Your task to perform on an android device: What's the news in Singapore? Image 0: 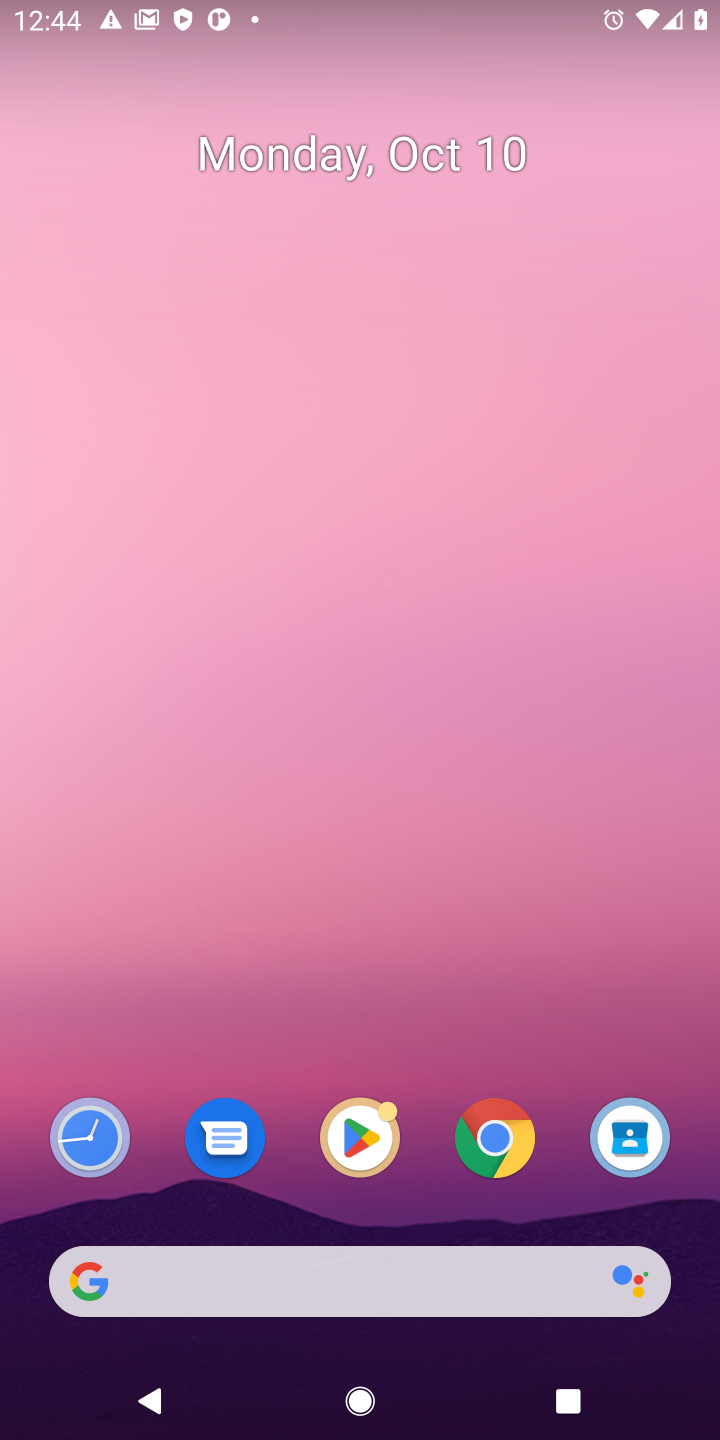
Step 0: click (486, 1162)
Your task to perform on an android device: What's the news in Singapore? Image 1: 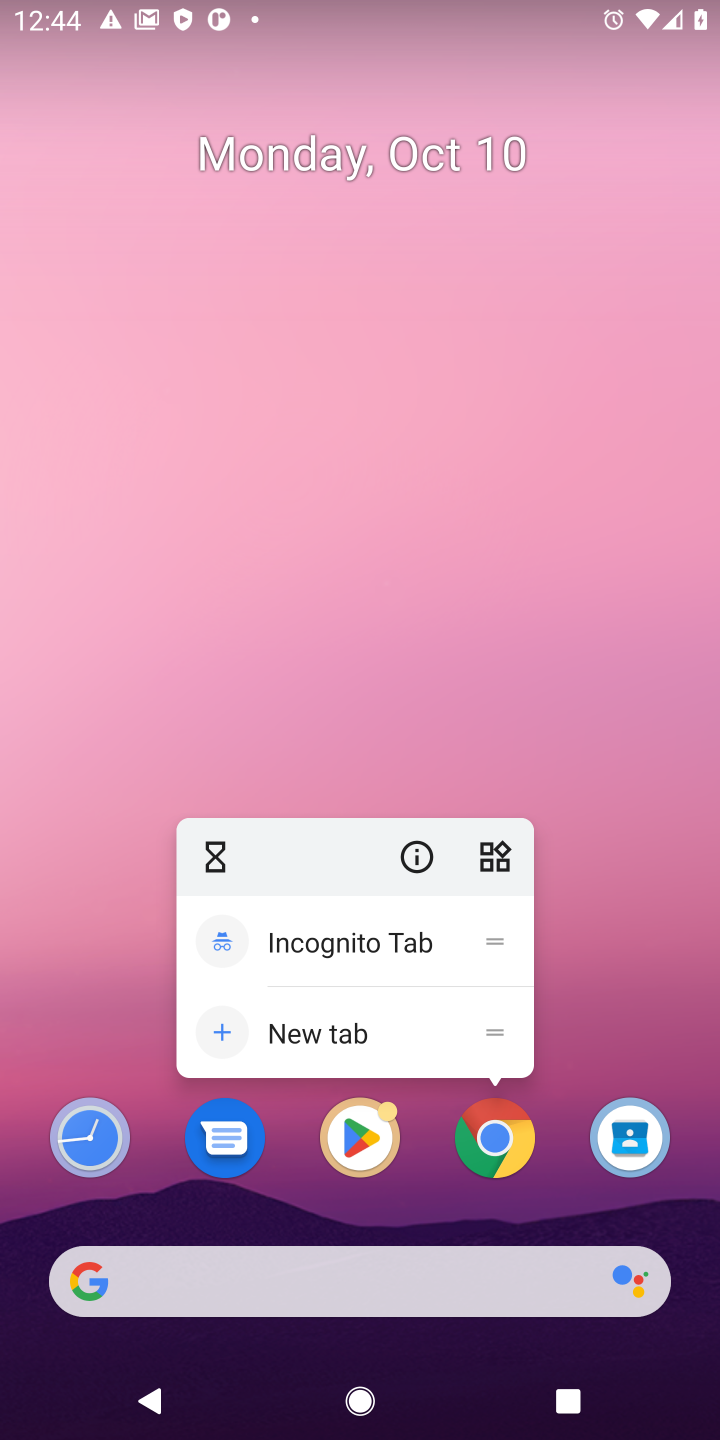
Step 1: click (518, 1147)
Your task to perform on an android device: What's the news in Singapore? Image 2: 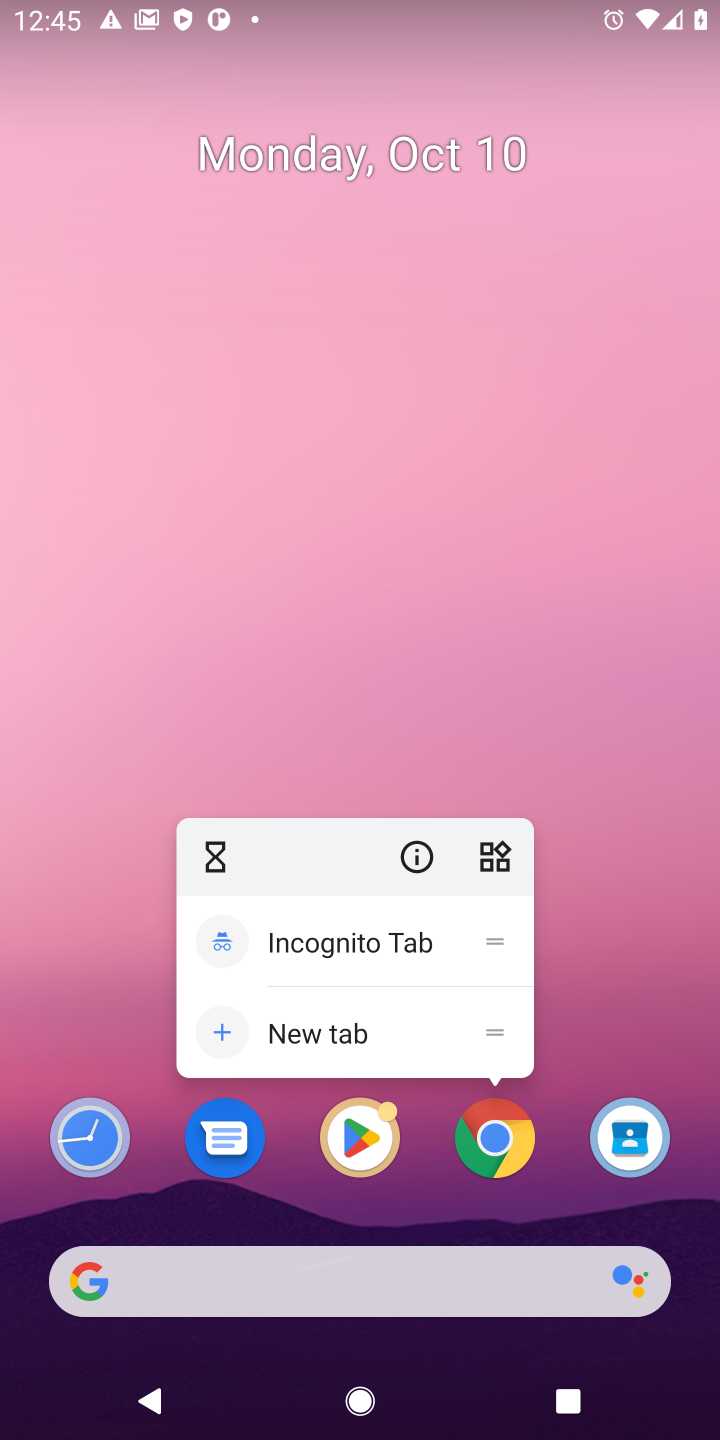
Step 2: click (518, 1147)
Your task to perform on an android device: What's the news in Singapore? Image 3: 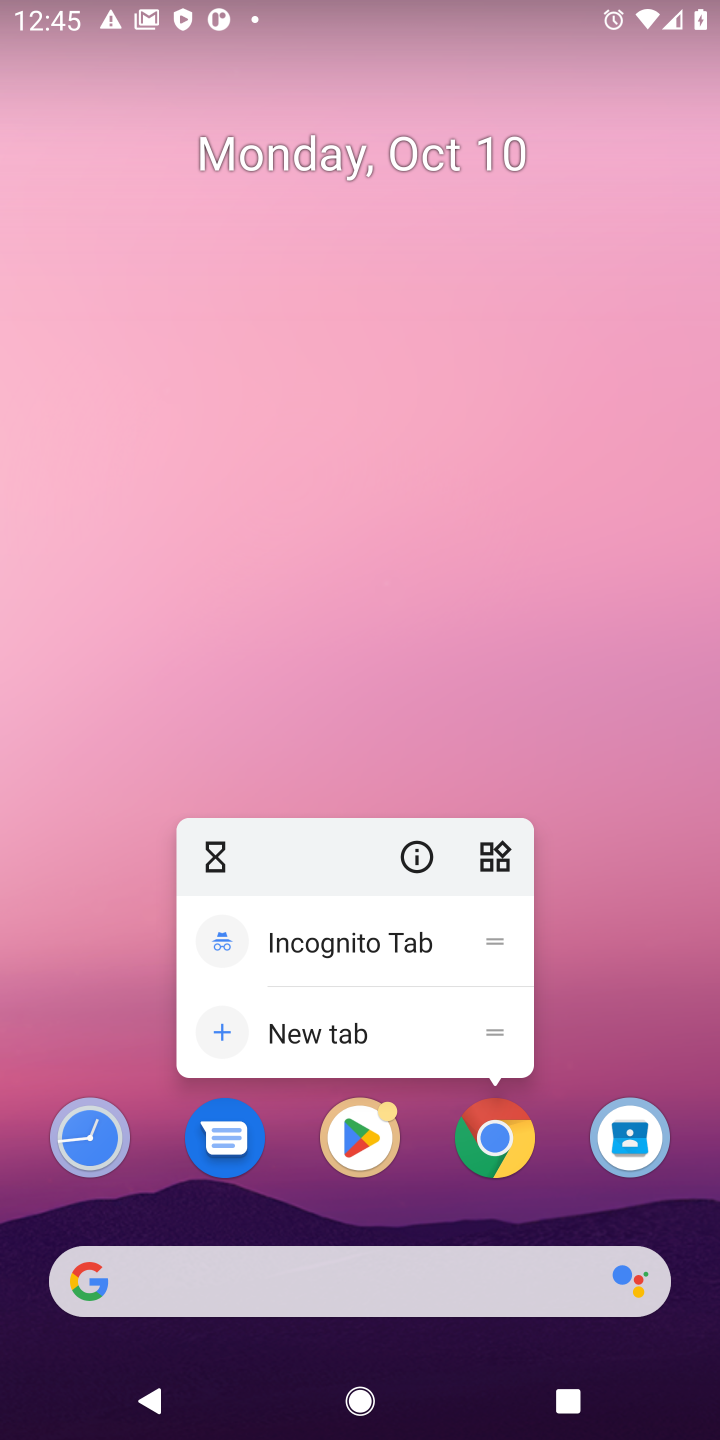
Step 3: click (518, 1147)
Your task to perform on an android device: What's the news in Singapore? Image 4: 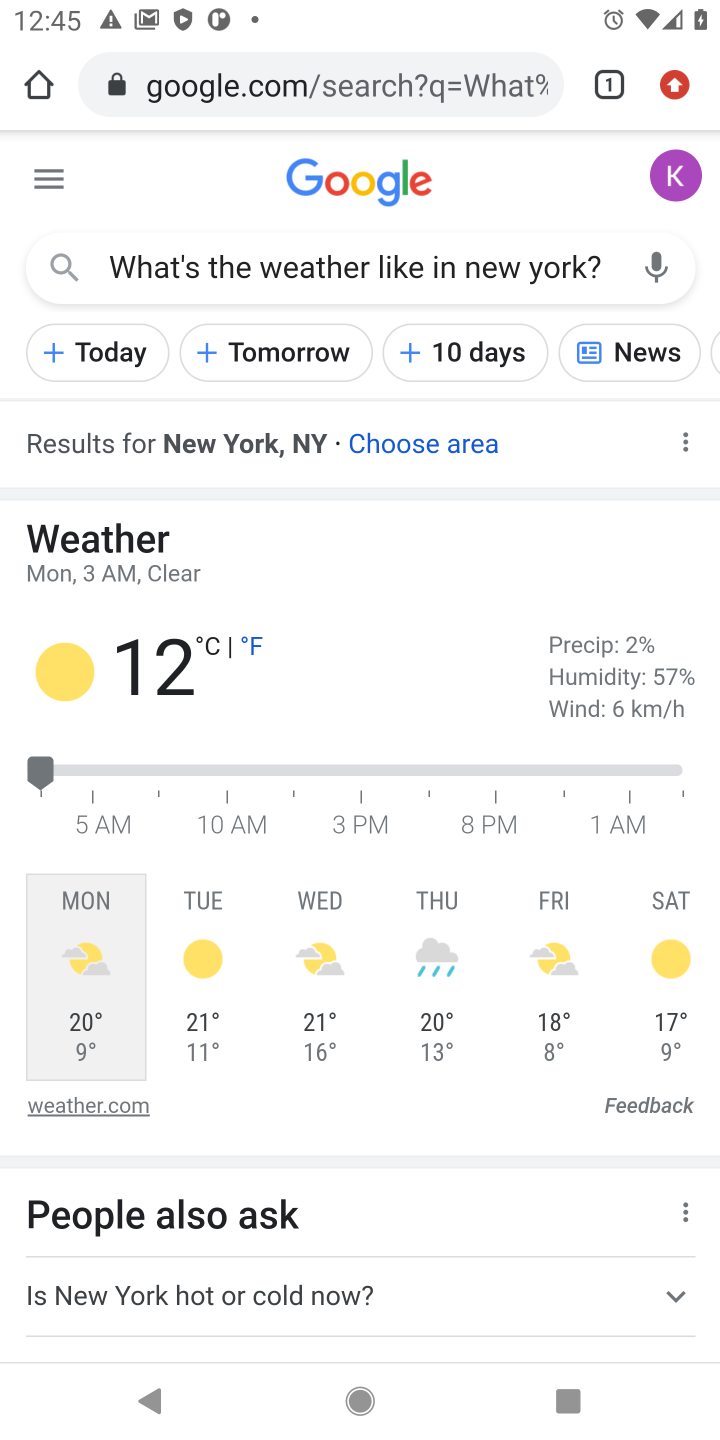
Step 4: click (461, 270)
Your task to perform on an android device: What's the news in Singapore? Image 5: 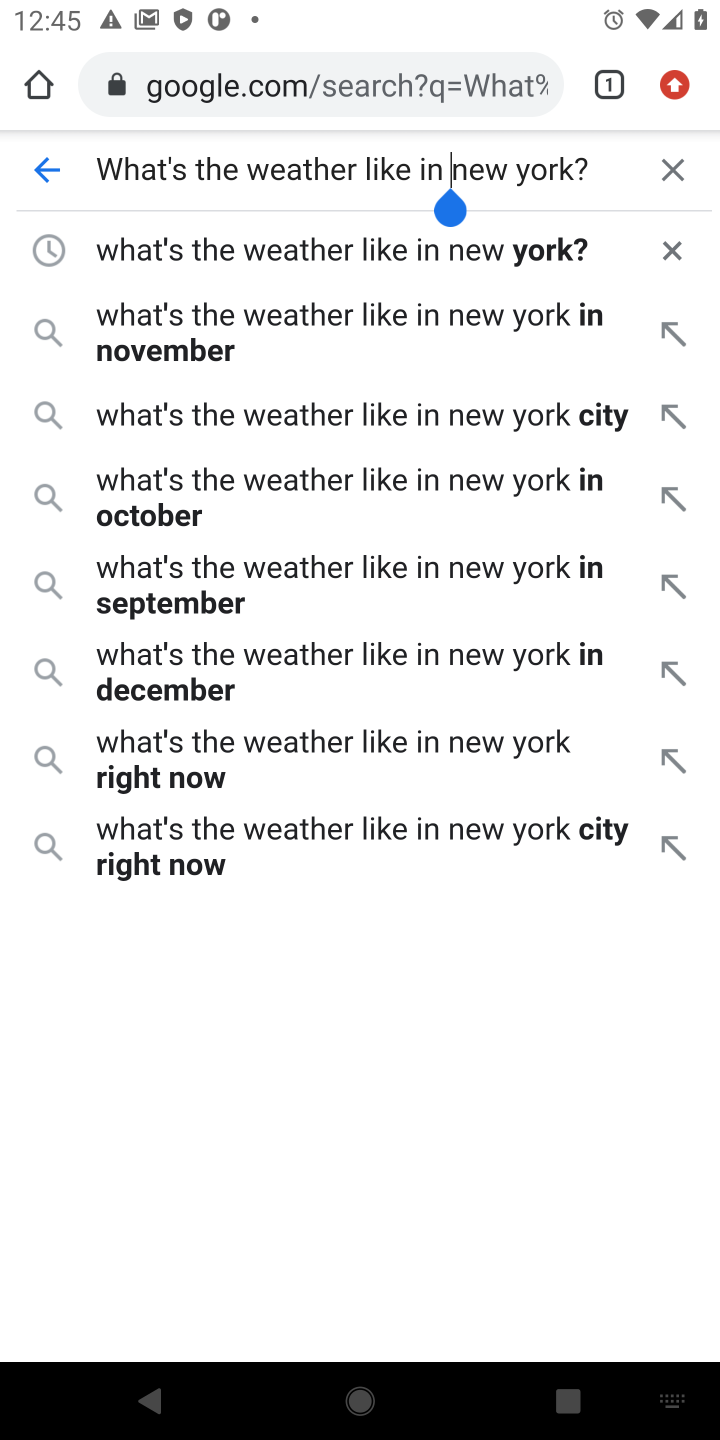
Step 5: click (659, 184)
Your task to perform on an android device: What's the news in Singapore? Image 6: 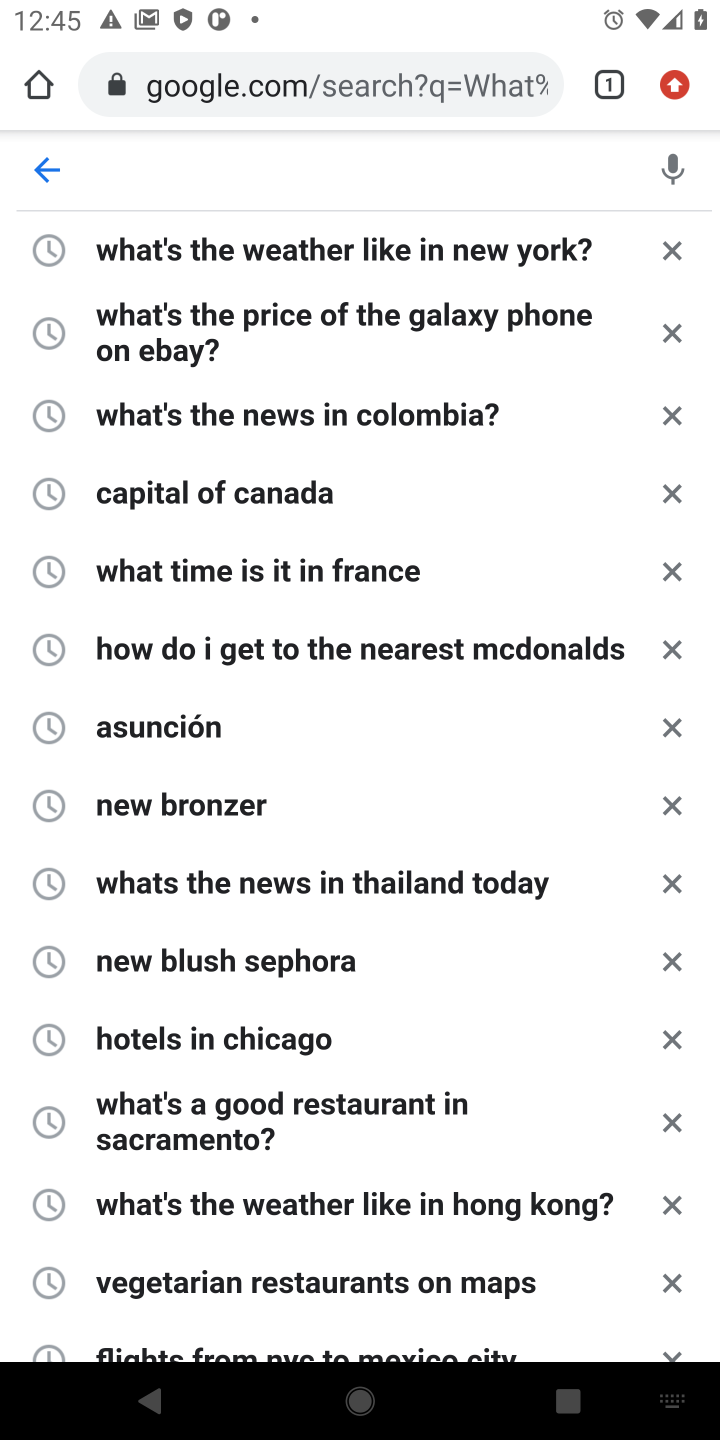
Step 6: type "news in singapore"
Your task to perform on an android device: What's the news in Singapore? Image 7: 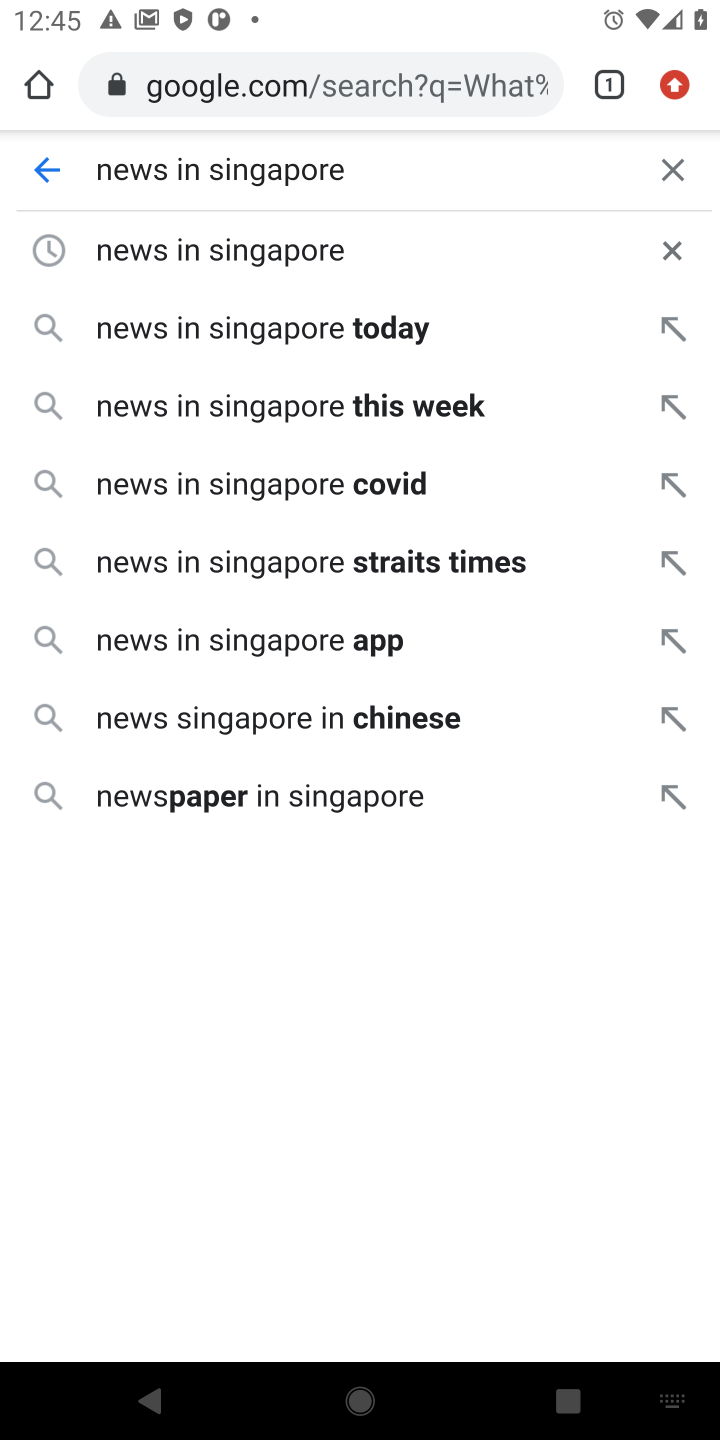
Step 7: press enter
Your task to perform on an android device: What's the news in Singapore? Image 8: 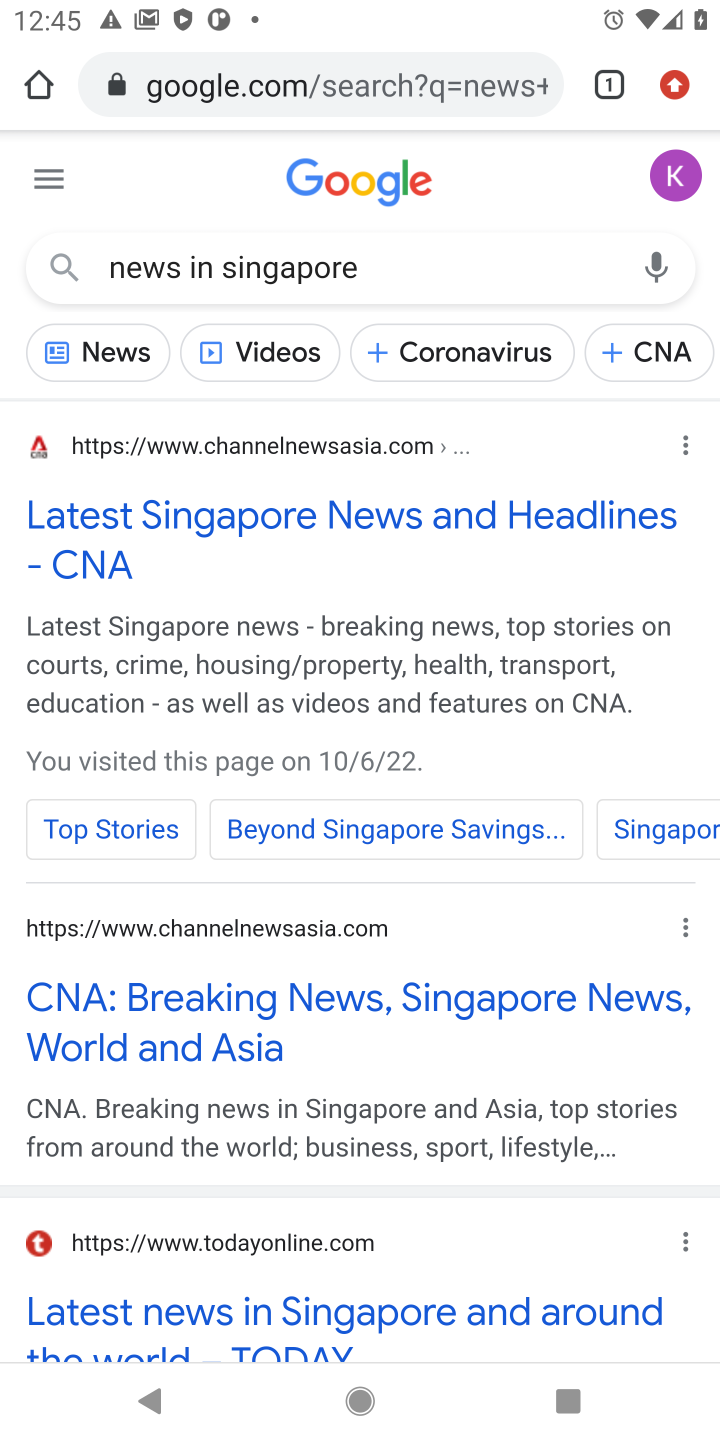
Step 8: click (125, 345)
Your task to perform on an android device: What's the news in Singapore? Image 9: 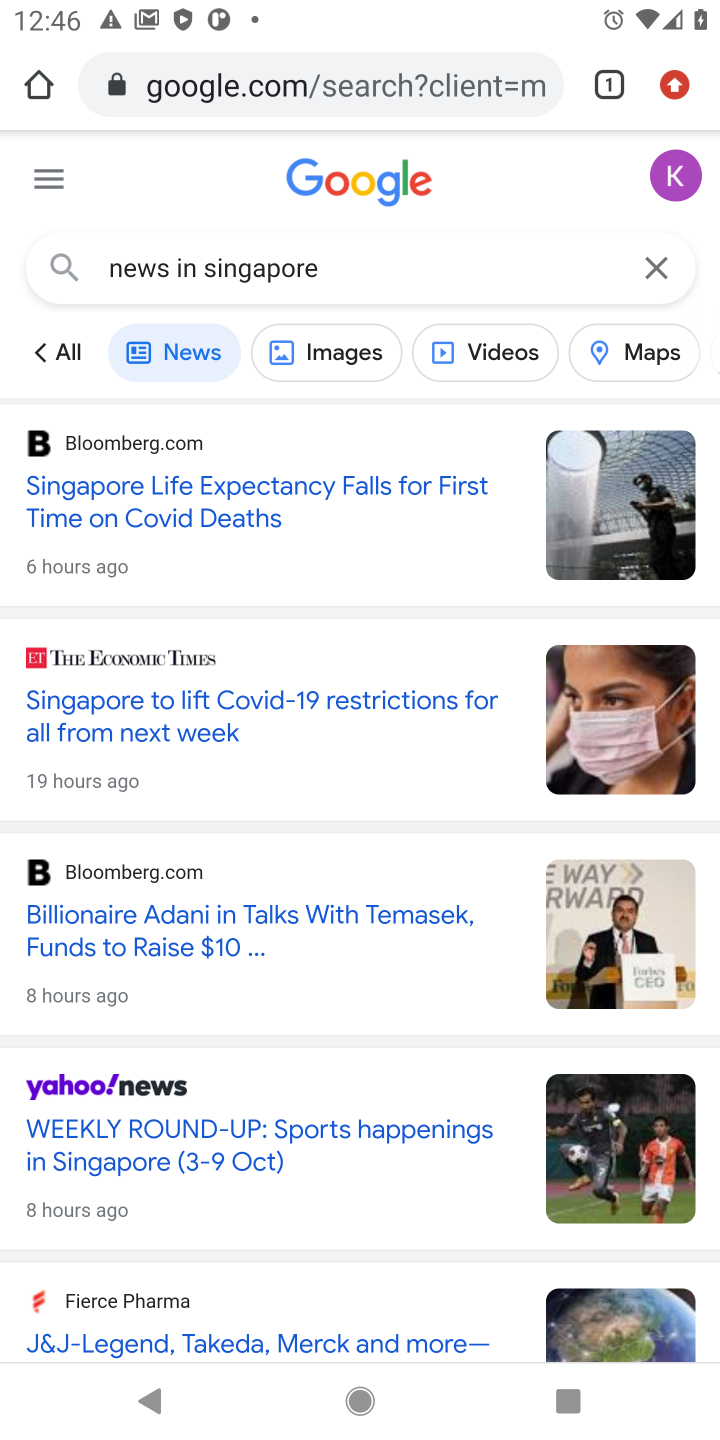
Step 9: task complete